Your task to perform on an android device: Go to settings Image 0: 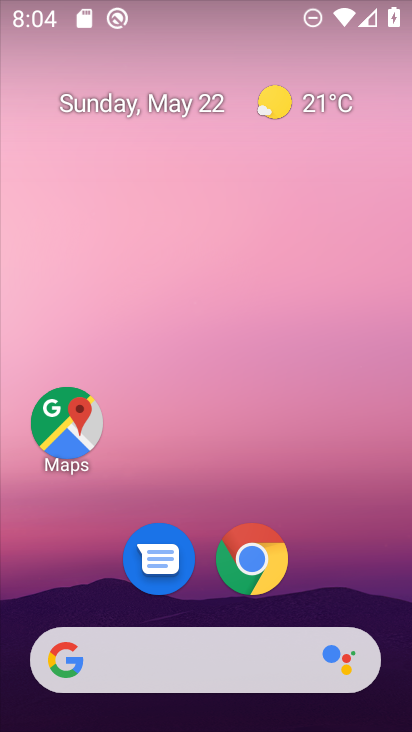
Step 0: press home button
Your task to perform on an android device: Go to settings Image 1: 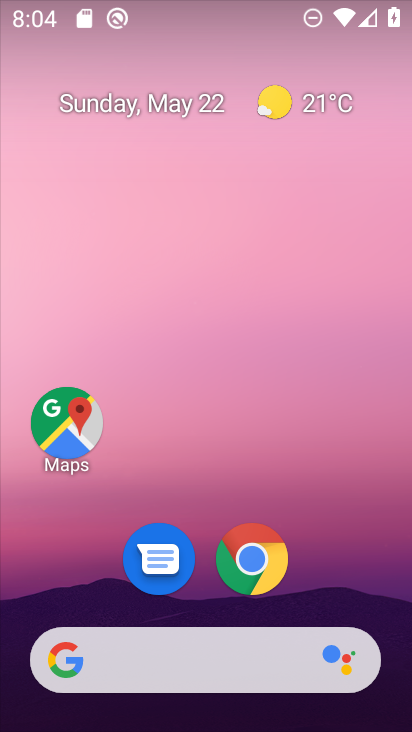
Step 1: drag from (266, 688) to (307, 190)
Your task to perform on an android device: Go to settings Image 2: 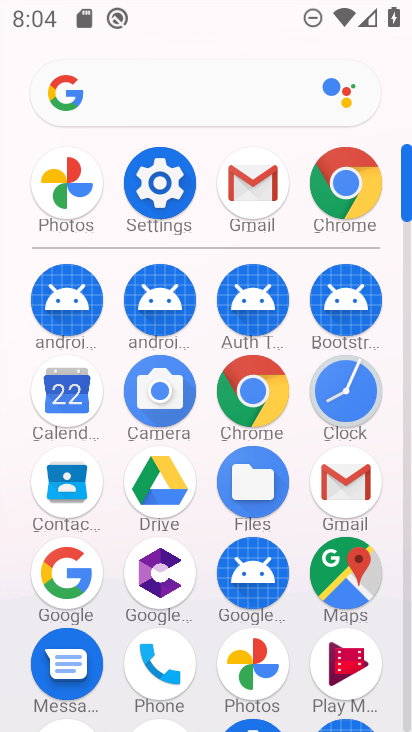
Step 2: click (136, 174)
Your task to perform on an android device: Go to settings Image 3: 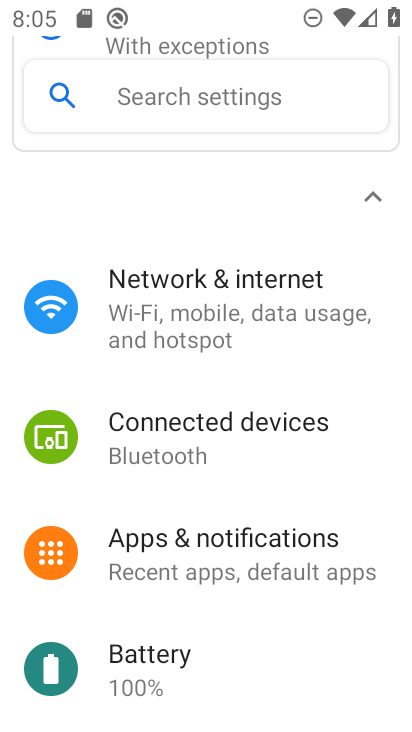
Step 3: task complete